Your task to perform on an android device: turn pop-ups off in chrome Image 0: 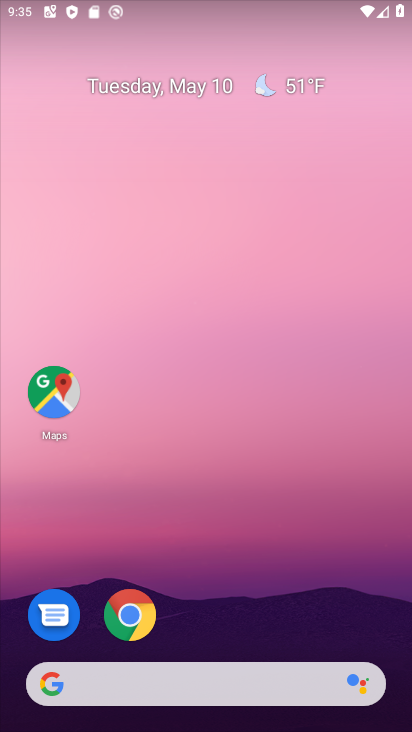
Step 0: drag from (278, 613) to (255, 110)
Your task to perform on an android device: turn pop-ups off in chrome Image 1: 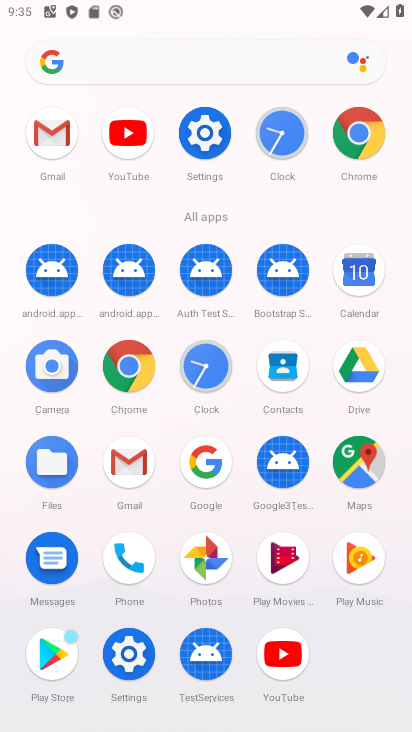
Step 1: click (362, 142)
Your task to perform on an android device: turn pop-ups off in chrome Image 2: 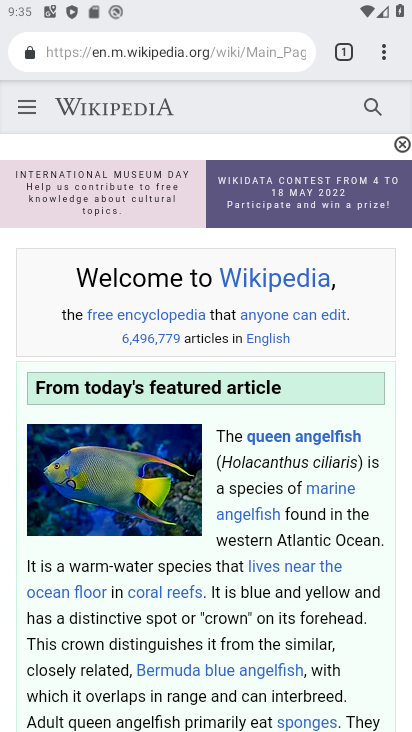
Step 2: click (383, 35)
Your task to perform on an android device: turn pop-ups off in chrome Image 3: 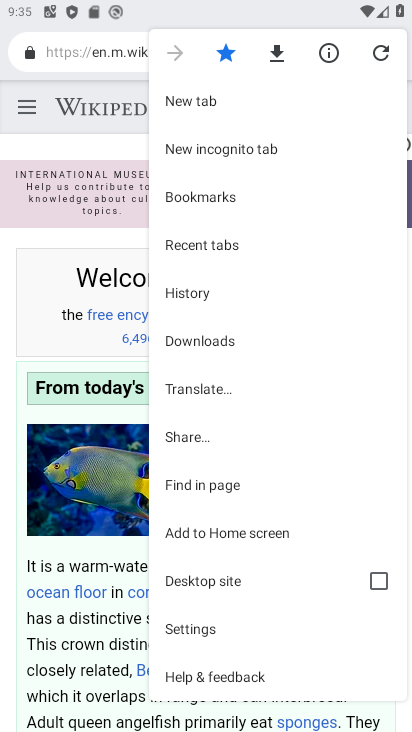
Step 3: click (234, 629)
Your task to perform on an android device: turn pop-ups off in chrome Image 4: 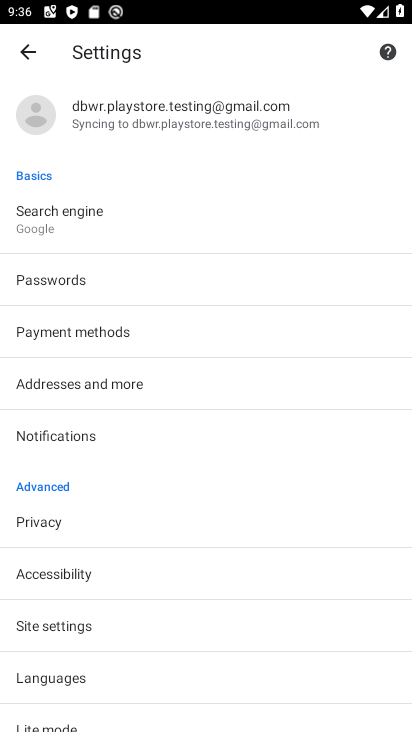
Step 4: click (108, 635)
Your task to perform on an android device: turn pop-ups off in chrome Image 5: 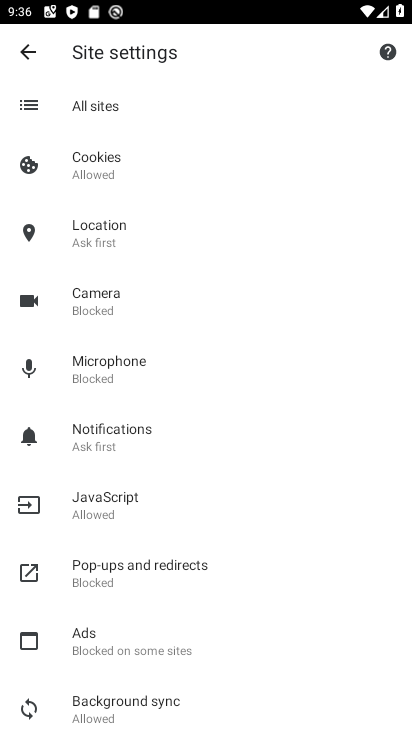
Step 5: click (134, 569)
Your task to perform on an android device: turn pop-ups off in chrome Image 6: 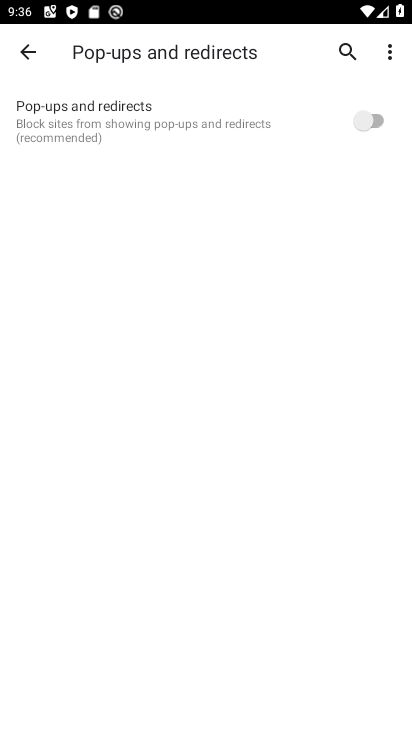
Step 6: task complete